Your task to perform on an android device: turn on sleep mode Image 0: 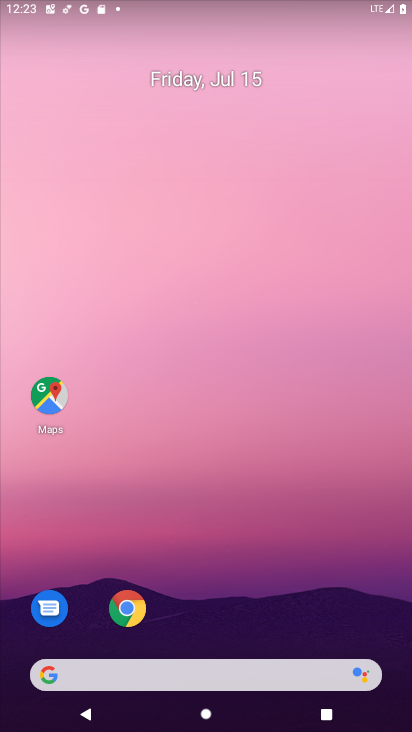
Step 0: drag from (188, 539) to (133, 18)
Your task to perform on an android device: turn on sleep mode Image 1: 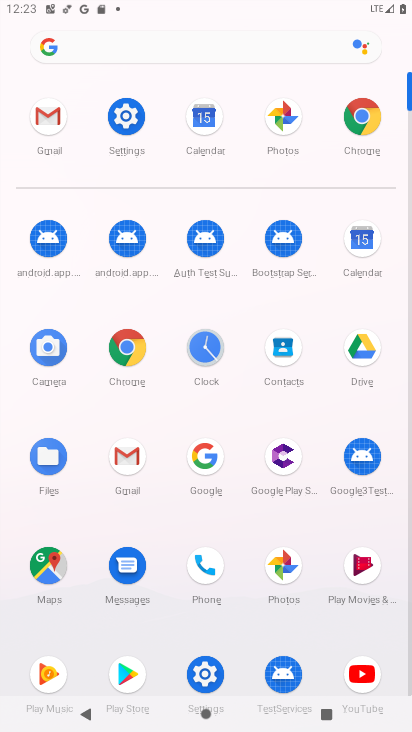
Step 1: click (126, 115)
Your task to perform on an android device: turn on sleep mode Image 2: 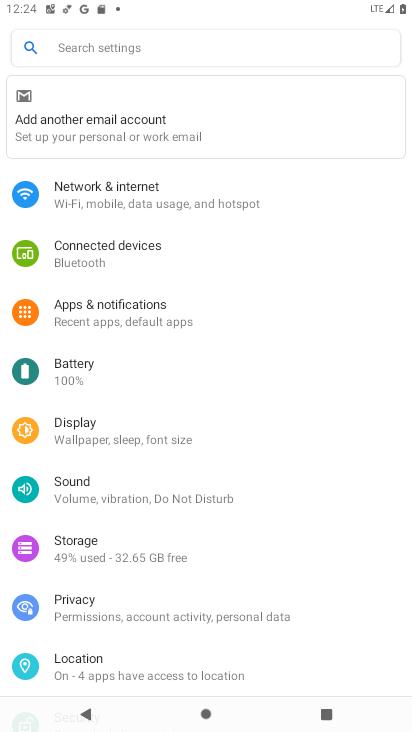
Step 2: click (76, 434)
Your task to perform on an android device: turn on sleep mode Image 3: 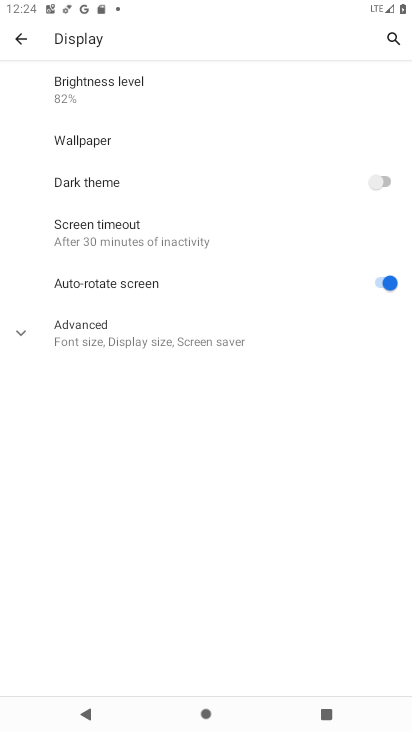
Step 3: task complete